Your task to perform on an android device: turn pop-ups off in chrome Image 0: 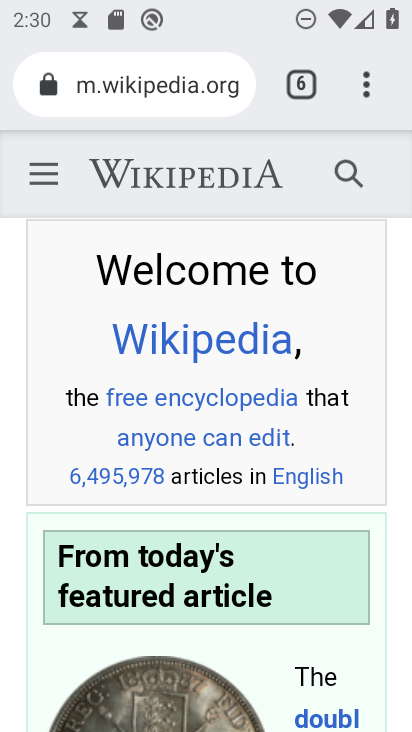
Step 0: task complete